Your task to perform on an android device: Go to sound settings Image 0: 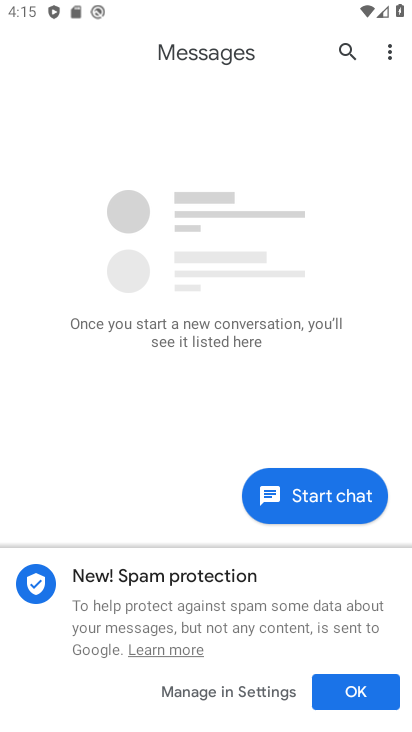
Step 0: press home button
Your task to perform on an android device: Go to sound settings Image 1: 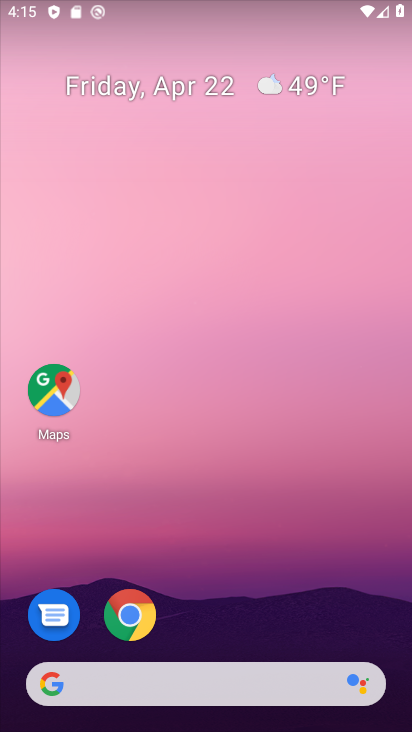
Step 1: drag from (212, 629) to (227, 182)
Your task to perform on an android device: Go to sound settings Image 2: 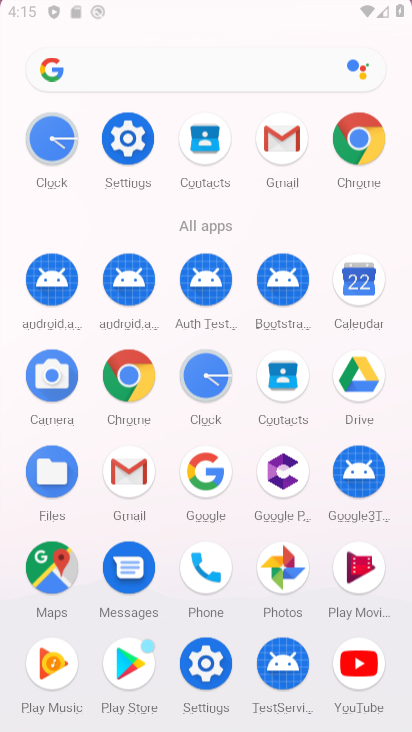
Step 2: drag from (217, 632) to (224, 203)
Your task to perform on an android device: Go to sound settings Image 3: 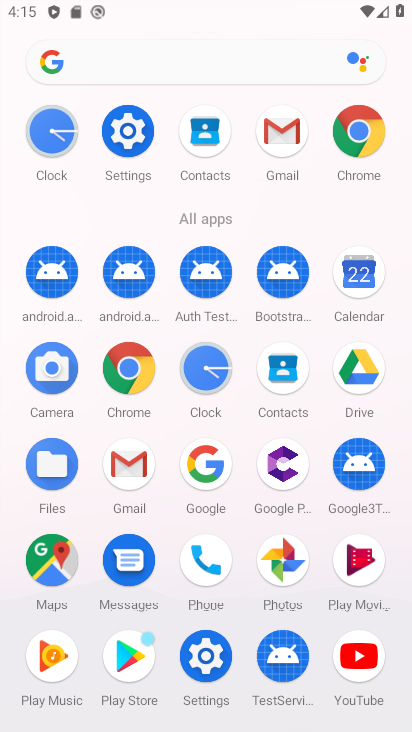
Step 3: click (129, 140)
Your task to perform on an android device: Go to sound settings Image 4: 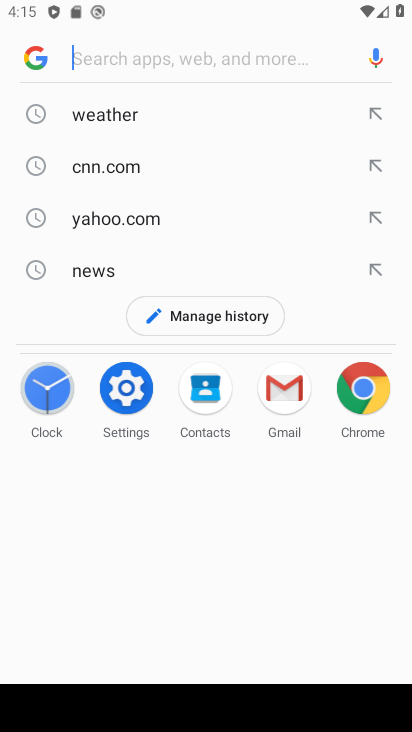
Step 4: click (123, 394)
Your task to perform on an android device: Go to sound settings Image 5: 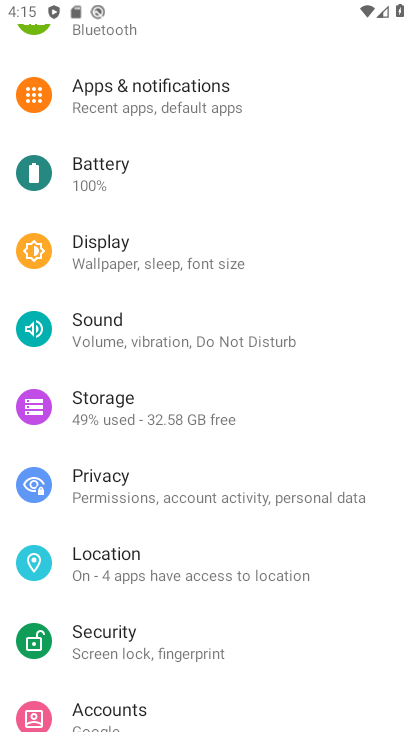
Step 5: click (136, 329)
Your task to perform on an android device: Go to sound settings Image 6: 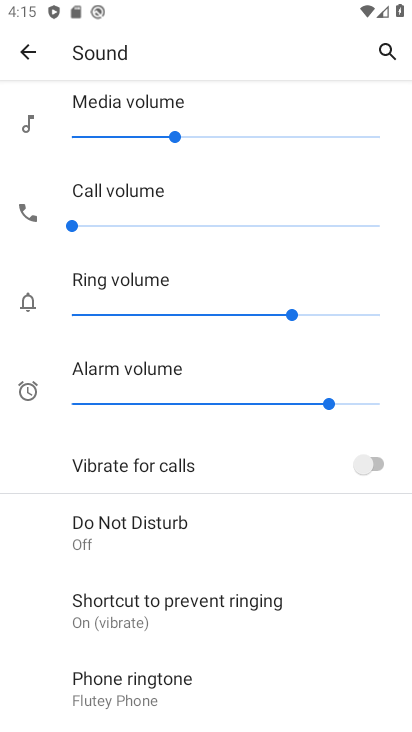
Step 6: task complete